Your task to perform on an android device: change the upload size in google photos Image 0: 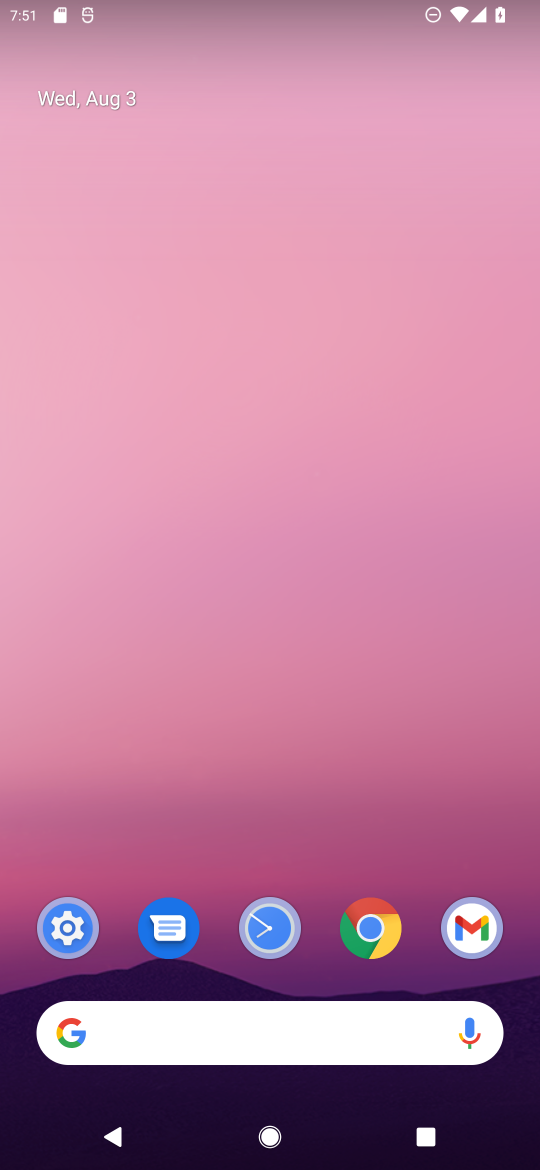
Step 0: drag from (420, 882) to (340, 264)
Your task to perform on an android device: change the upload size in google photos Image 1: 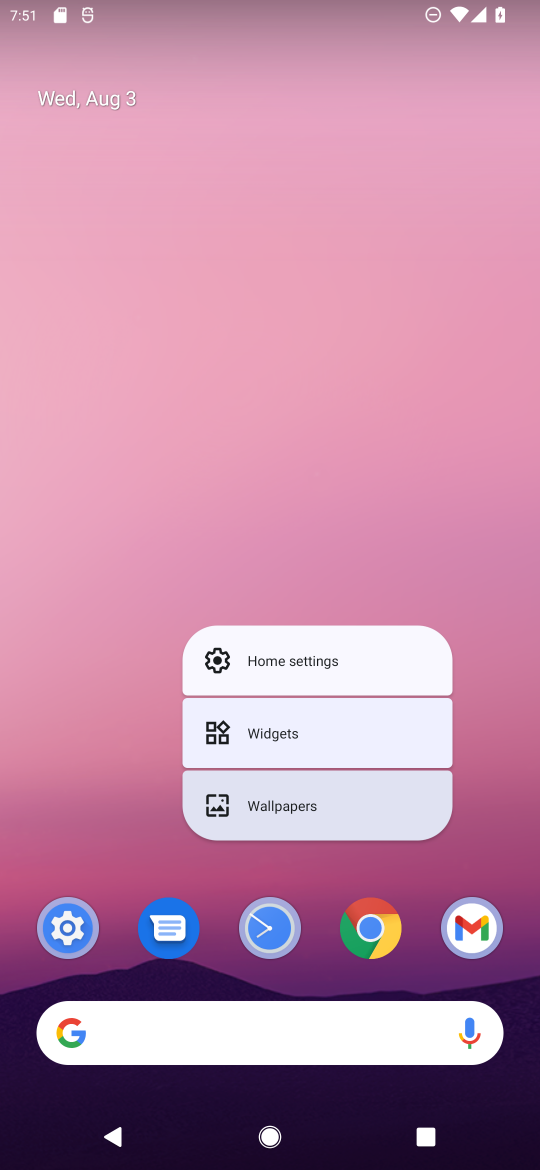
Step 1: drag from (519, 1017) to (306, 66)
Your task to perform on an android device: change the upload size in google photos Image 2: 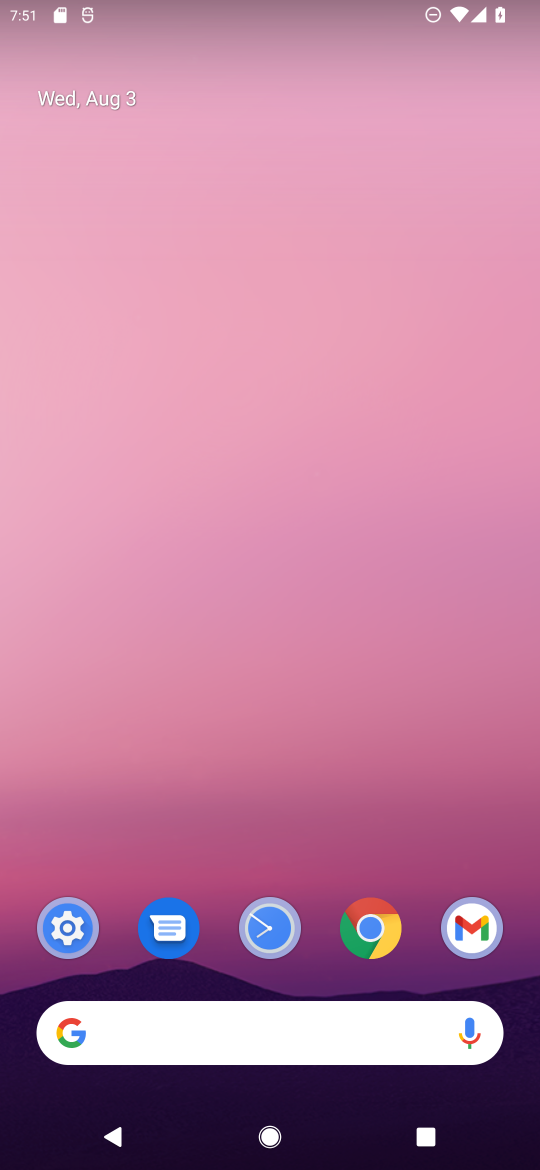
Step 2: drag from (465, 219) to (444, 87)
Your task to perform on an android device: change the upload size in google photos Image 3: 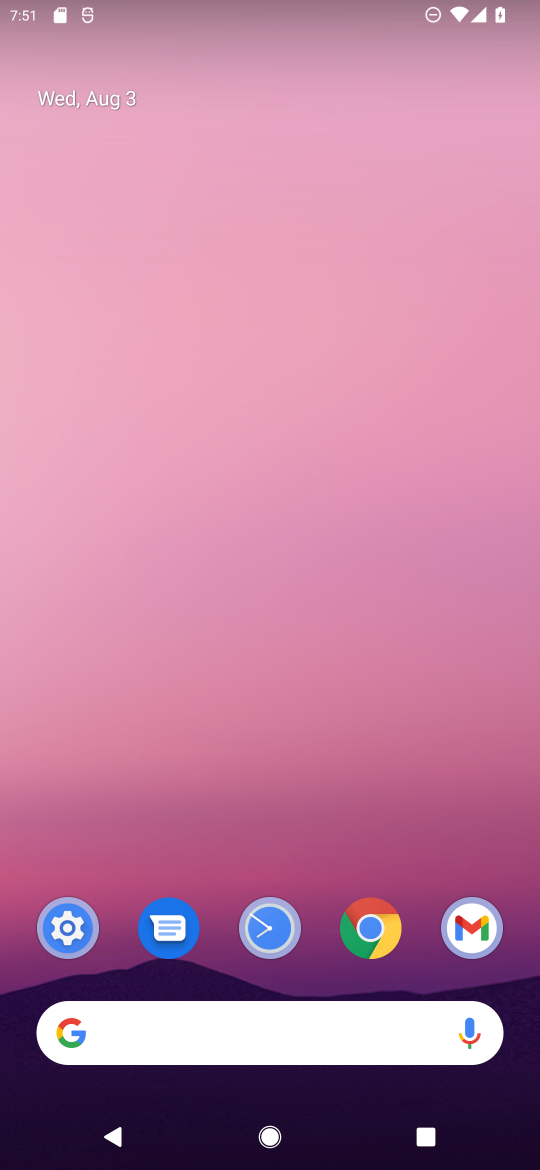
Step 3: drag from (521, 1036) to (418, 201)
Your task to perform on an android device: change the upload size in google photos Image 4: 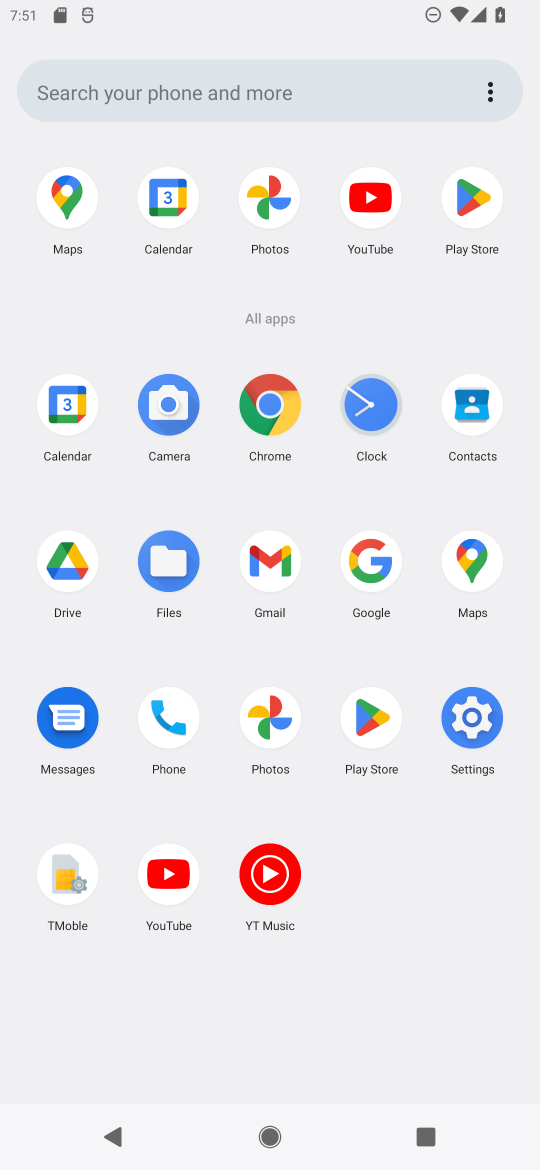
Step 4: click (261, 740)
Your task to perform on an android device: change the upload size in google photos Image 5: 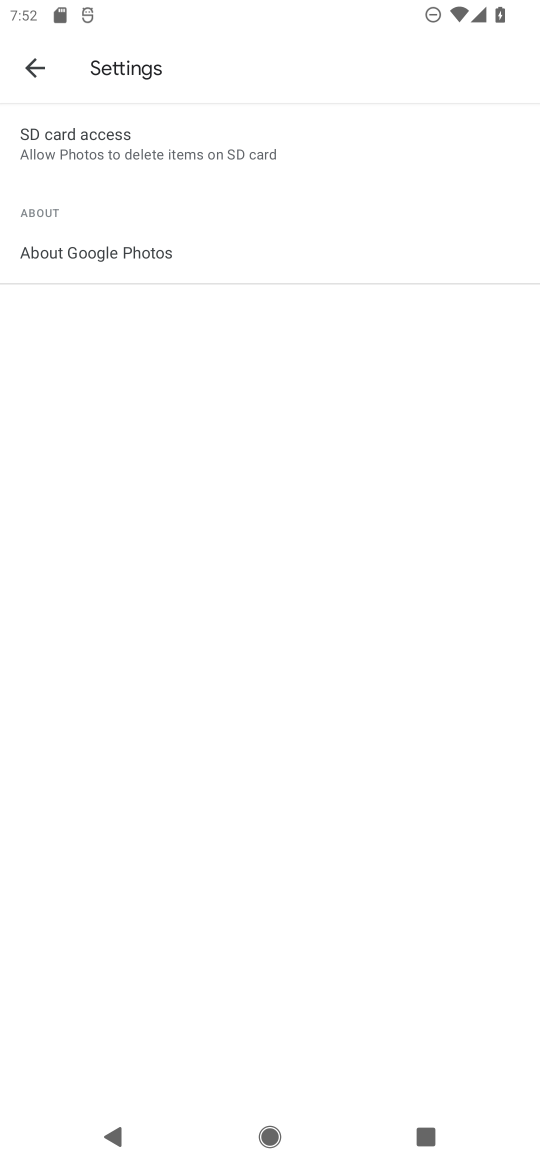
Step 5: click (39, 72)
Your task to perform on an android device: change the upload size in google photos Image 6: 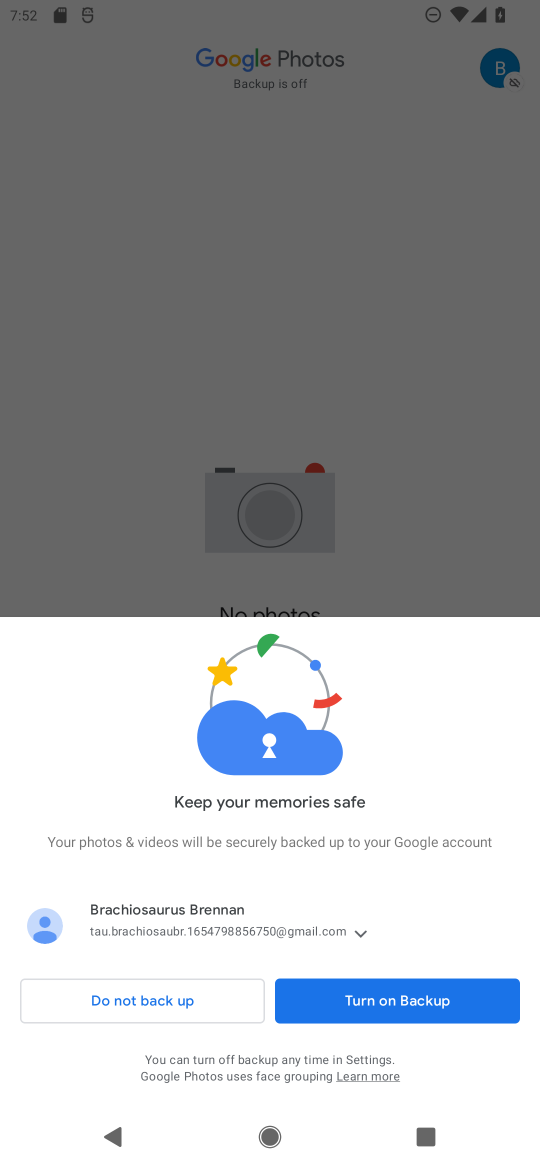
Step 6: click (361, 994)
Your task to perform on an android device: change the upload size in google photos Image 7: 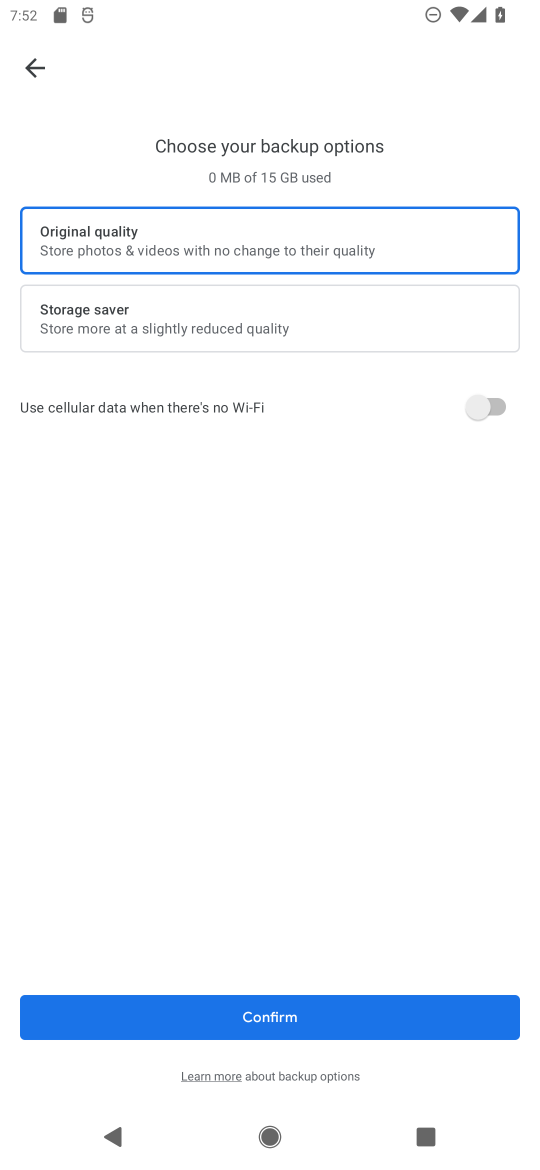
Step 7: click (297, 330)
Your task to perform on an android device: change the upload size in google photos Image 8: 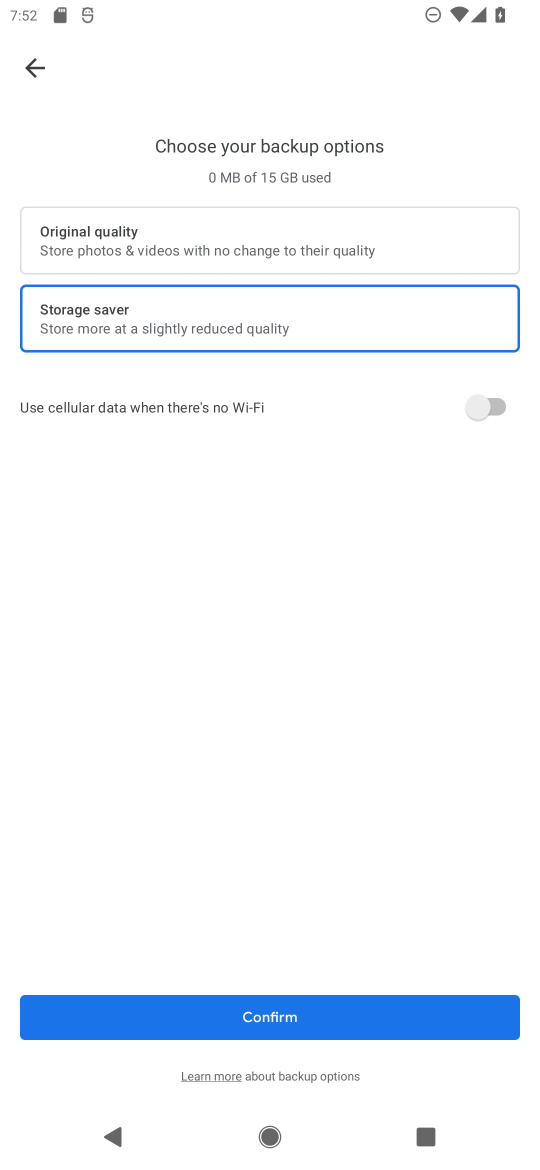
Step 8: click (285, 1023)
Your task to perform on an android device: change the upload size in google photos Image 9: 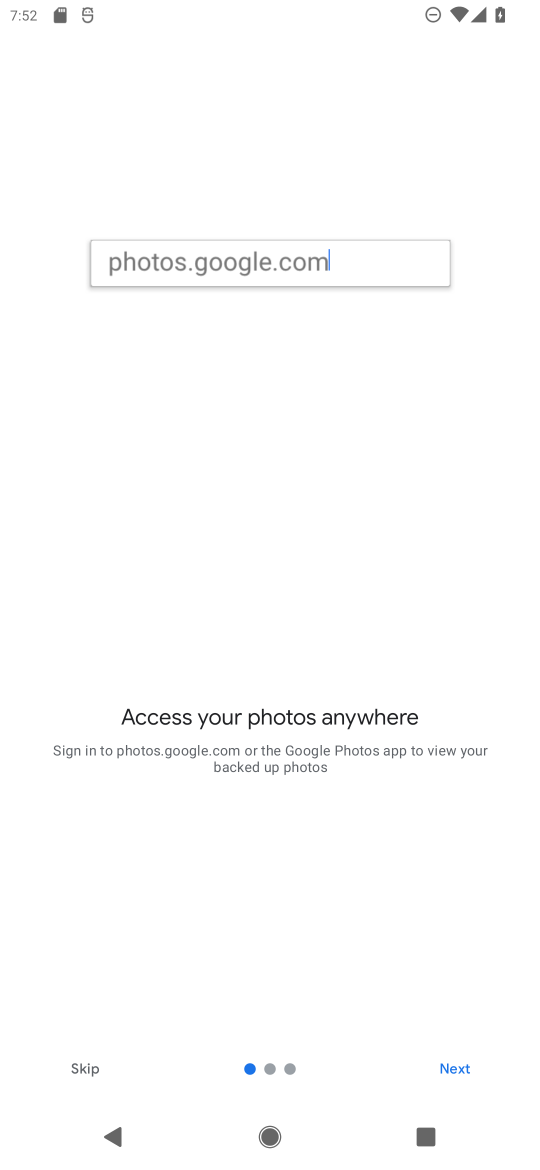
Step 9: task complete